Your task to perform on an android device: Show me recent news Image 0: 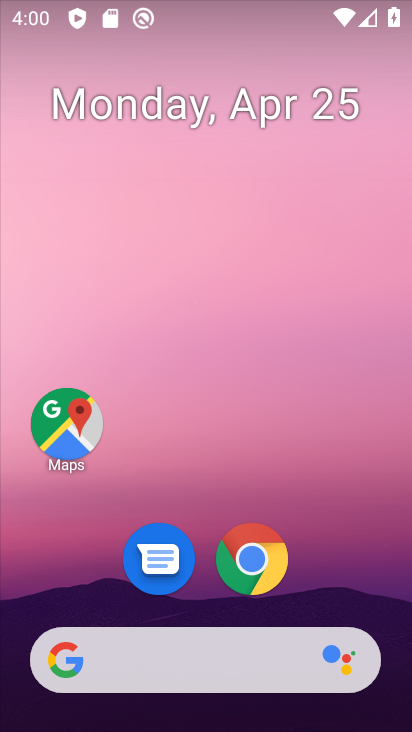
Step 0: drag from (200, 470) to (255, 22)
Your task to perform on an android device: Show me recent news Image 1: 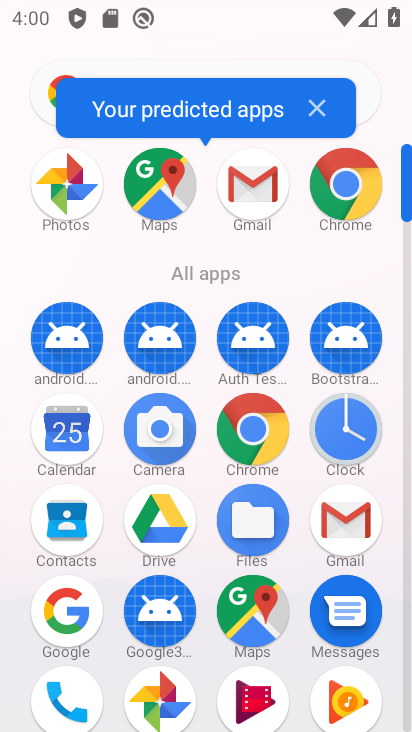
Step 1: click (65, 610)
Your task to perform on an android device: Show me recent news Image 2: 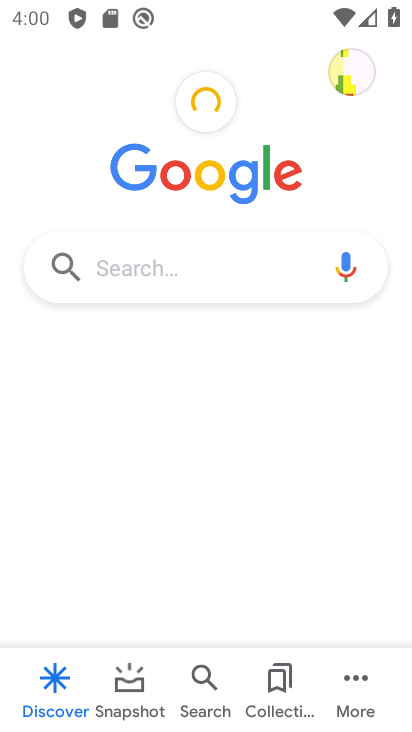
Step 2: click (161, 270)
Your task to perform on an android device: Show me recent news Image 3: 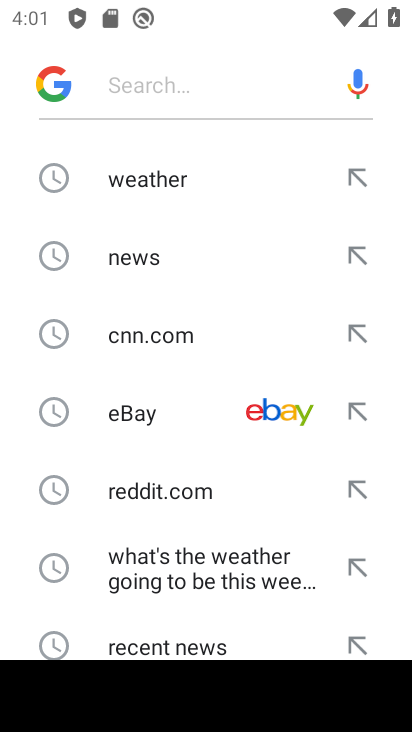
Step 3: click (183, 645)
Your task to perform on an android device: Show me recent news Image 4: 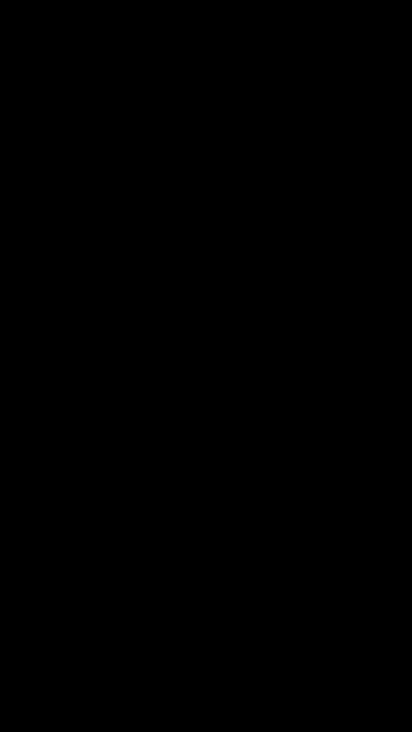
Step 4: task complete